Your task to perform on an android device: turn off improve location accuracy Image 0: 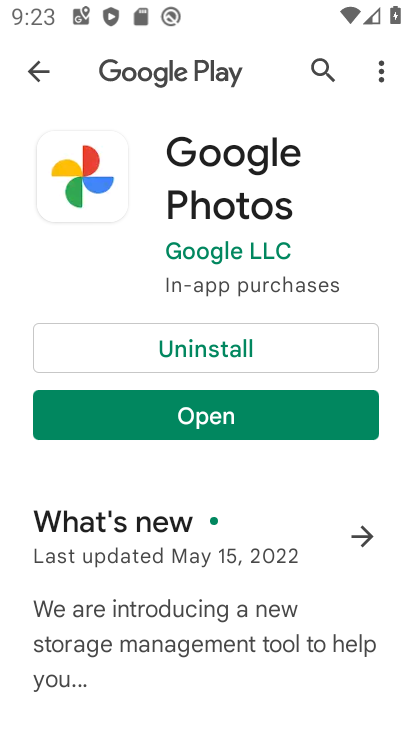
Step 0: press home button
Your task to perform on an android device: turn off improve location accuracy Image 1: 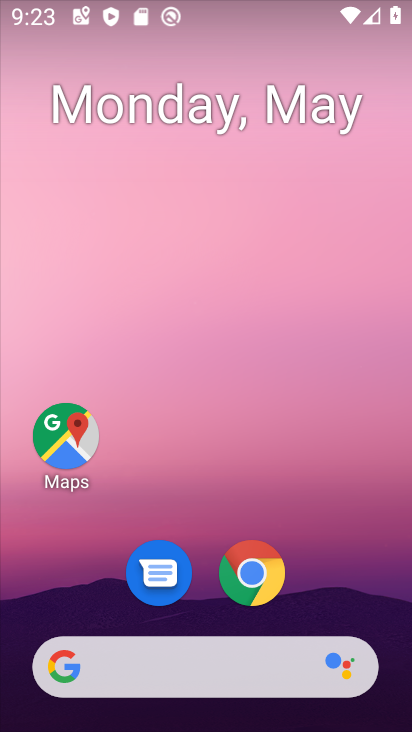
Step 1: drag from (341, 571) to (302, 136)
Your task to perform on an android device: turn off improve location accuracy Image 2: 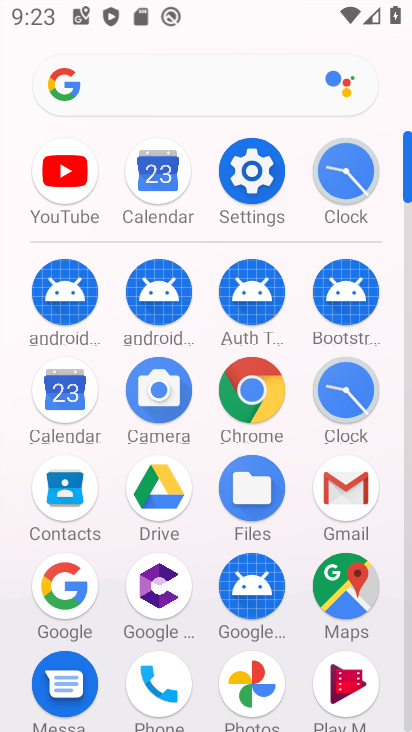
Step 2: click (272, 185)
Your task to perform on an android device: turn off improve location accuracy Image 3: 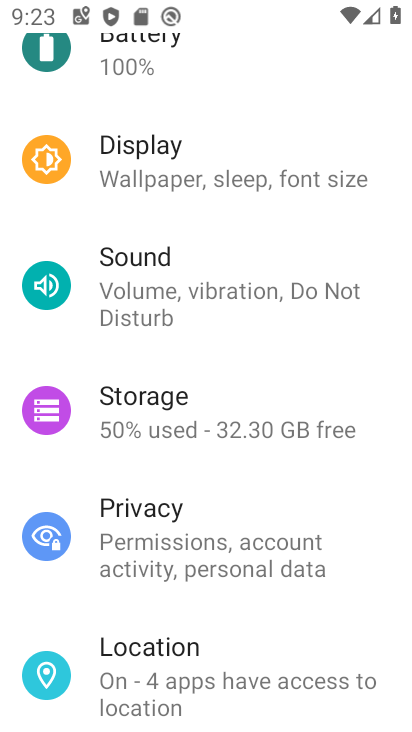
Step 3: click (228, 639)
Your task to perform on an android device: turn off improve location accuracy Image 4: 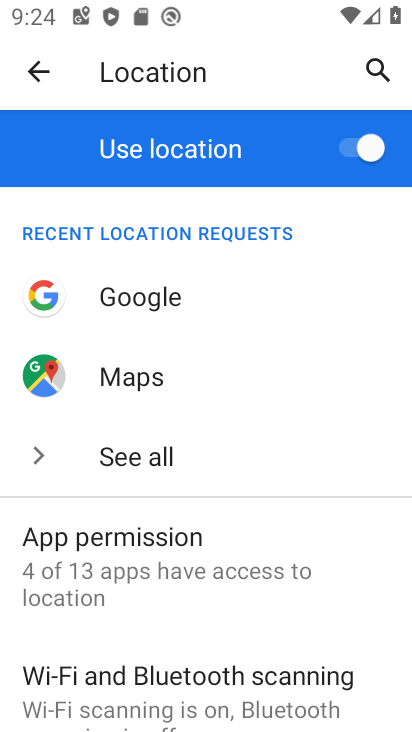
Step 4: drag from (239, 616) to (239, 323)
Your task to perform on an android device: turn off improve location accuracy Image 5: 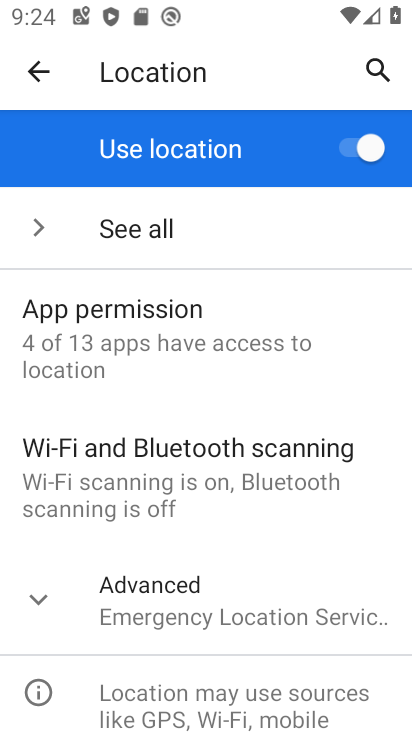
Step 5: click (204, 610)
Your task to perform on an android device: turn off improve location accuracy Image 6: 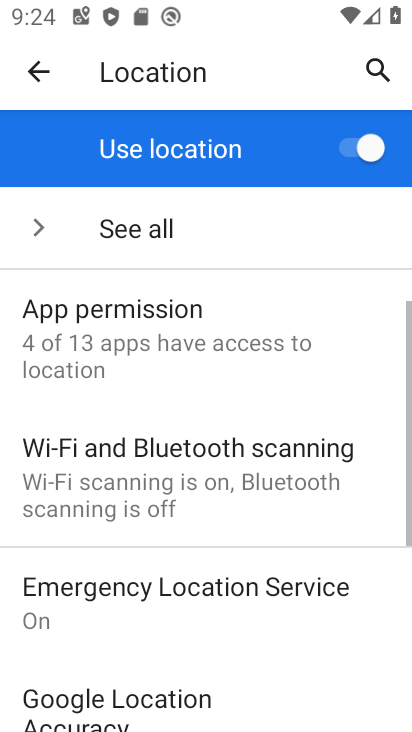
Step 6: task complete